Your task to perform on an android device: Go to Google Image 0: 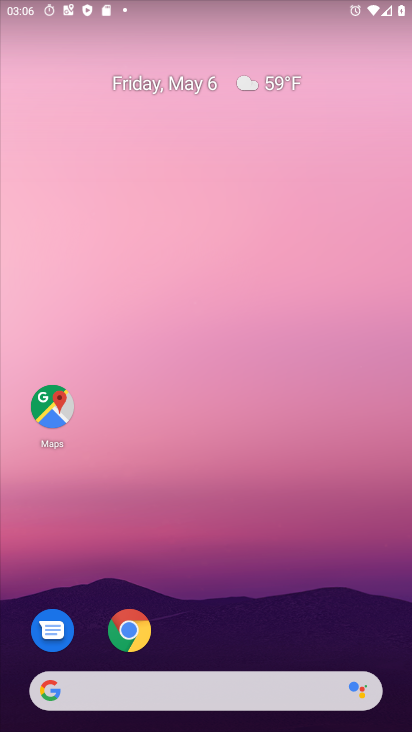
Step 0: drag from (217, 641) to (219, 184)
Your task to perform on an android device: Go to Google Image 1: 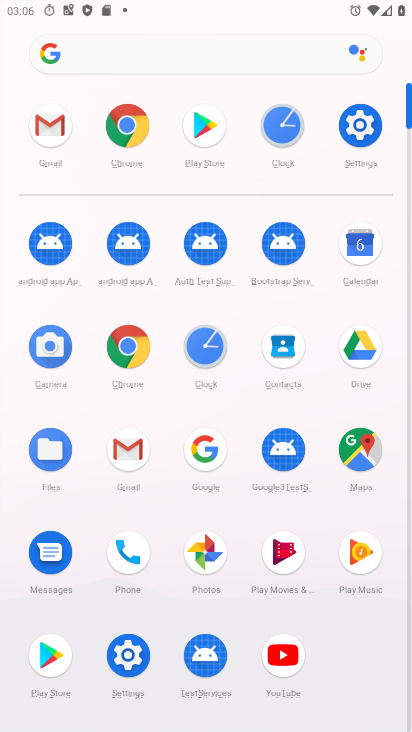
Step 1: click (183, 443)
Your task to perform on an android device: Go to Google Image 2: 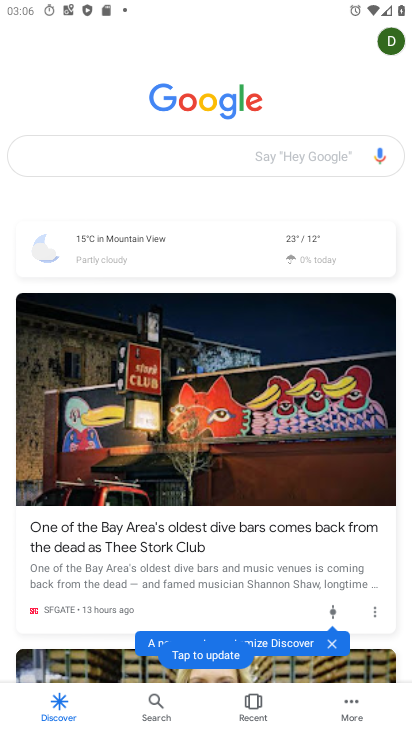
Step 2: task complete